Your task to perform on an android device: move an email to a new category in the gmail app Image 0: 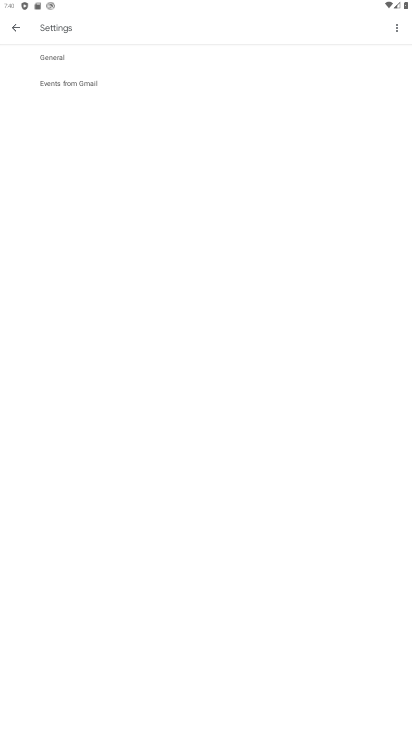
Step 0: drag from (229, 615) to (272, 245)
Your task to perform on an android device: move an email to a new category in the gmail app Image 1: 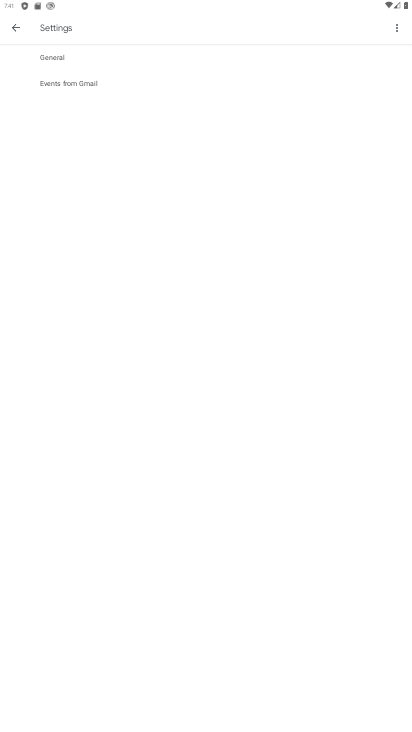
Step 1: press home button
Your task to perform on an android device: move an email to a new category in the gmail app Image 2: 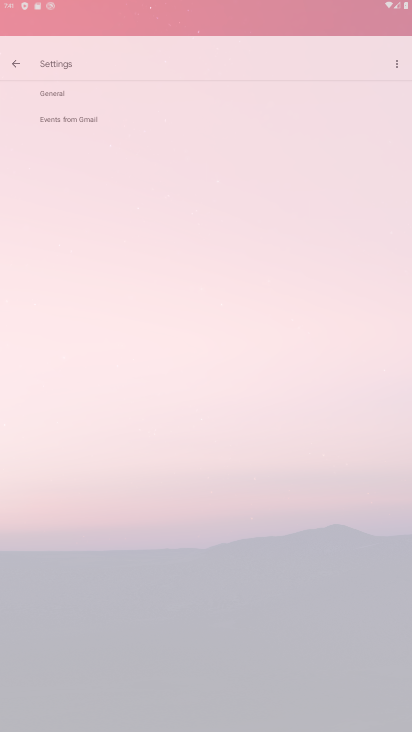
Step 2: drag from (163, 551) to (298, 107)
Your task to perform on an android device: move an email to a new category in the gmail app Image 3: 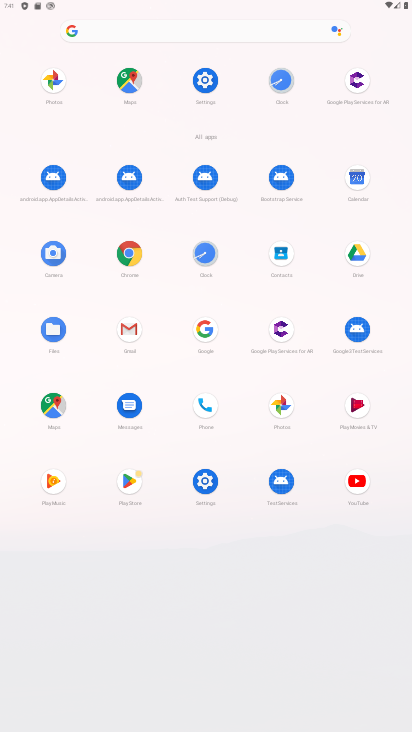
Step 3: click (135, 350)
Your task to perform on an android device: move an email to a new category in the gmail app Image 4: 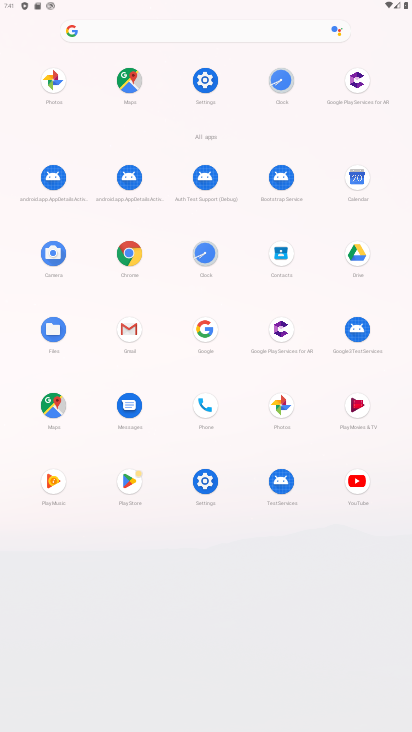
Step 4: click (128, 335)
Your task to perform on an android device: move an email to a new category in the gmail app Image 5: 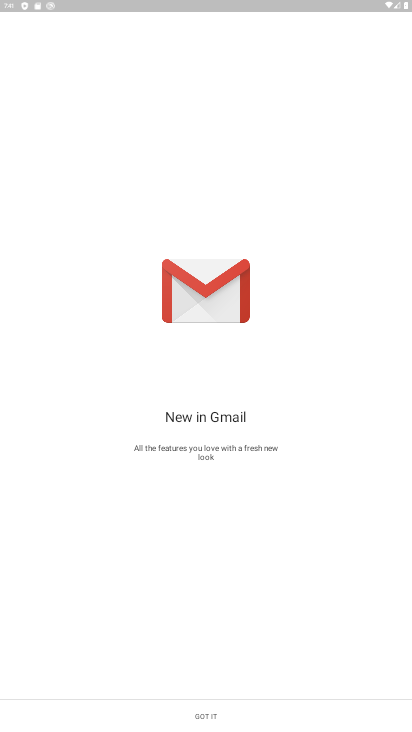
Step 5: click (202, 706)
Your task to perform on an android device: move an email to a new category in the gmail app Image 6: 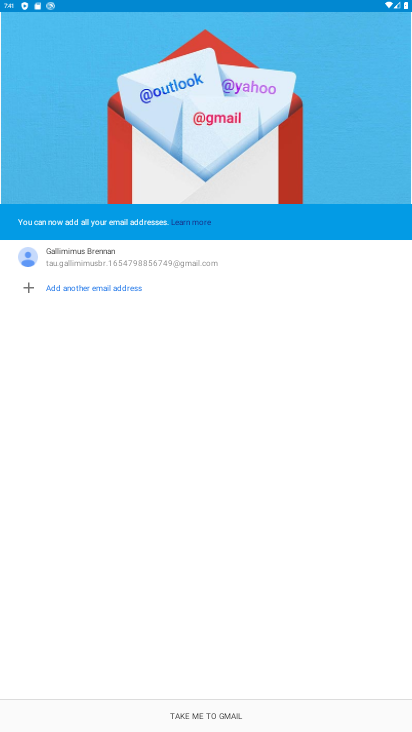
Step 6: click (208, 709)
Your task to perform on an android device: move an email to a new category in the gmail app Image 7: 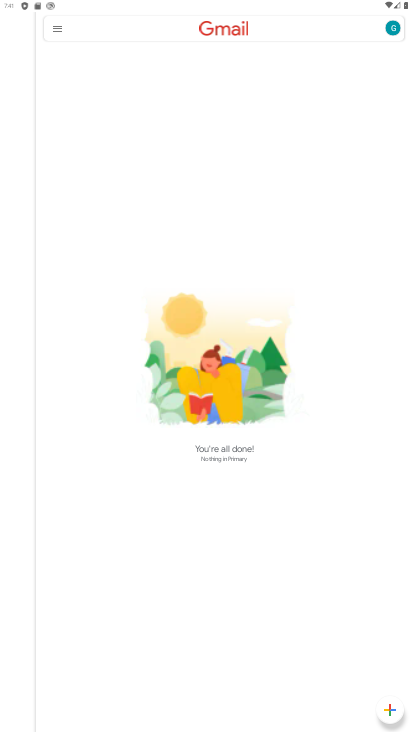
Step 7: drag from (238, 560) to (235, 209)
Your task to perform on an android device: move an email to a new category in the gmail app Image 8: 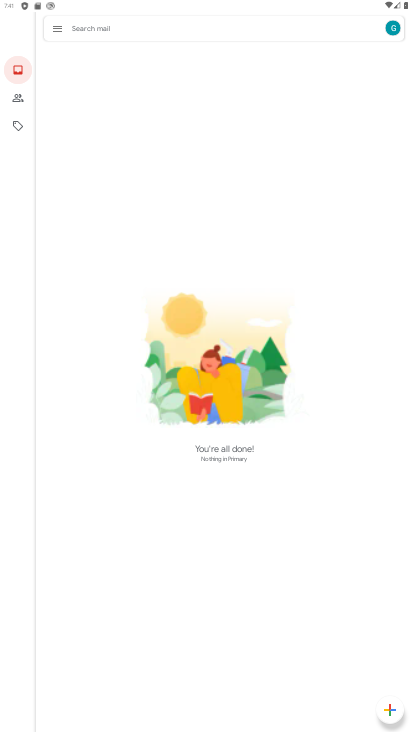
Step 8: click (56, 20)
Your task to perform on an android device: move an email to a new category in the gmail app Image 9: 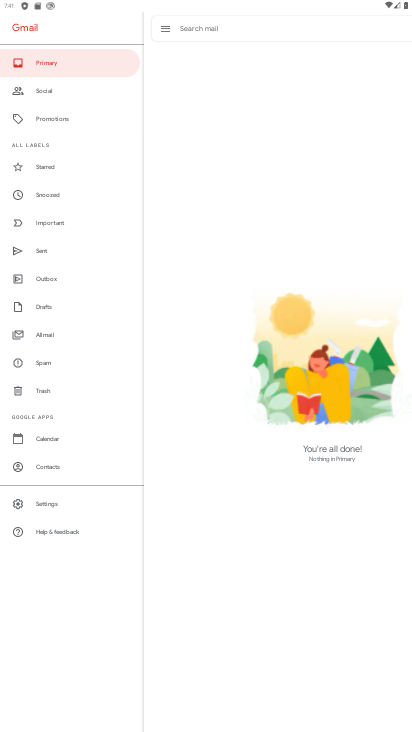
Step 9: click (160, 30)
Your task to perform on an android device: move an email to a new category in the gmail app Image 10: 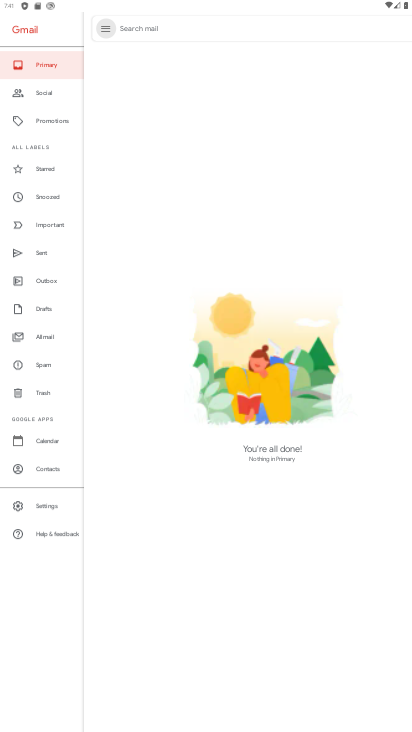
Step 10: click (195, 236)
Your task to perform on an android device: move an email to a new category in the gmail app Image 11: 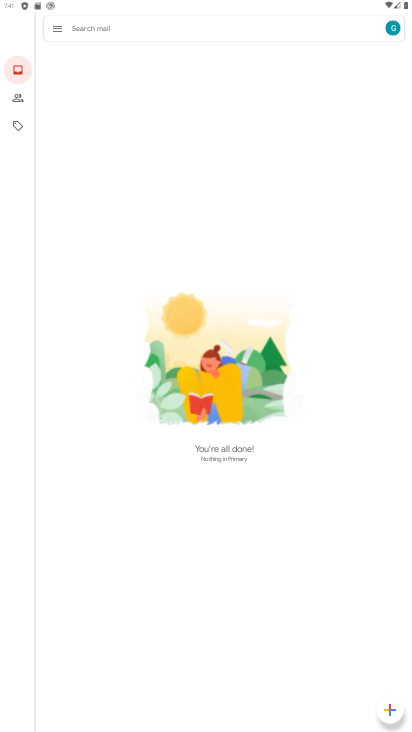
Step 11: task complete